Your task to perform on an android device: turn vacation reply on in the gmail app Image 0: 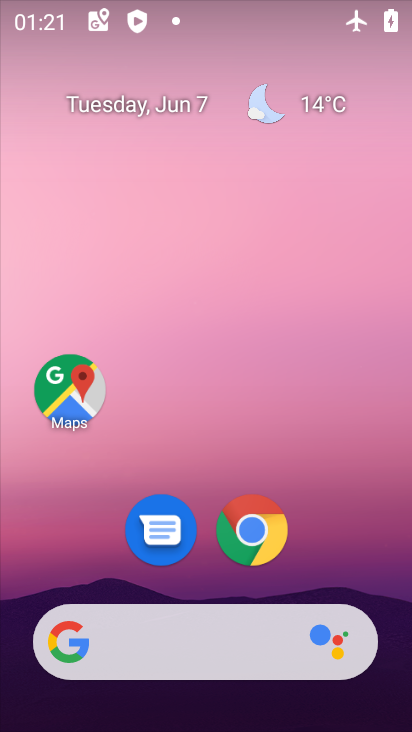
Step 0: drag from (293, 560) to (327, 187)
Your task to perform on an android device: turn vacation reply on in the gmail app Image 1: 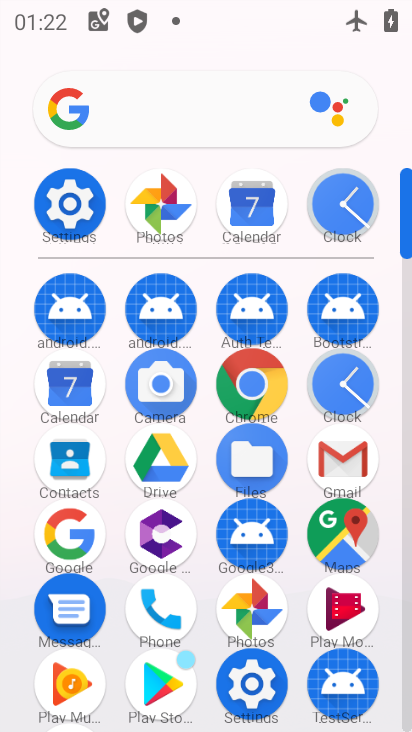
Step 1: click (348, 452)
Your task to perform on an android device: turn vacation reply on in the gmail app Image 2: 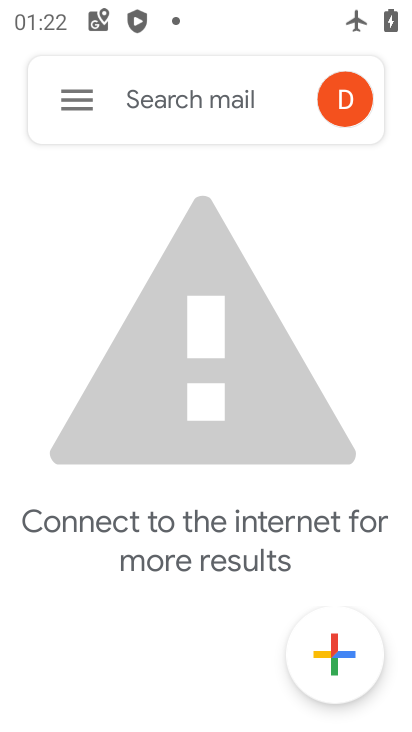
Step 2: click (79, 95)
Your task to perform on an android device: turn vacation reply on in the gmail app Image 3: 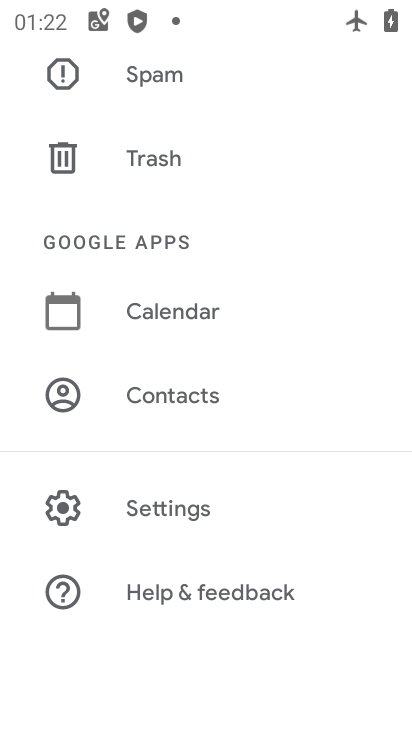
Step 3: click (151, 497)
Your task to perform on an android device: turn vacation reply on in the gmail app Image 4: 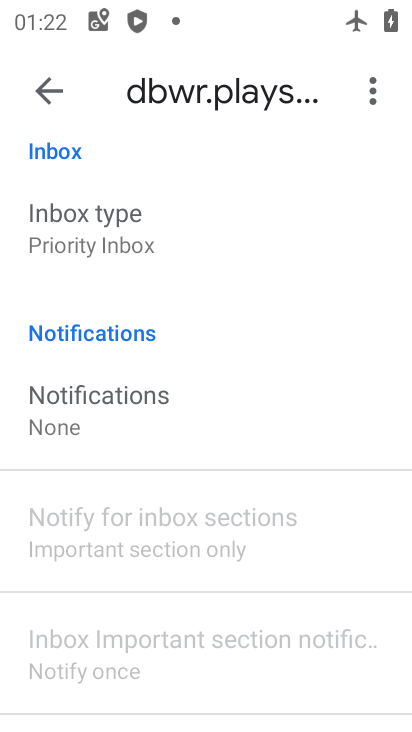
Step 4: drag from (260, 568) to (259, 197)
Your task to perform on an android device: turn vacation reply on in the gmail app Image 5: 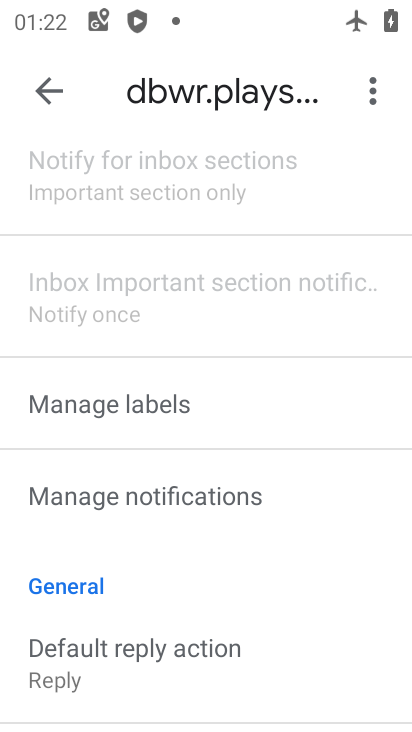
Step 5: drag from (185, 581) to (208, 265)
Your task to perform on an android device: turn vacation reply on in the gmail app Image 6: 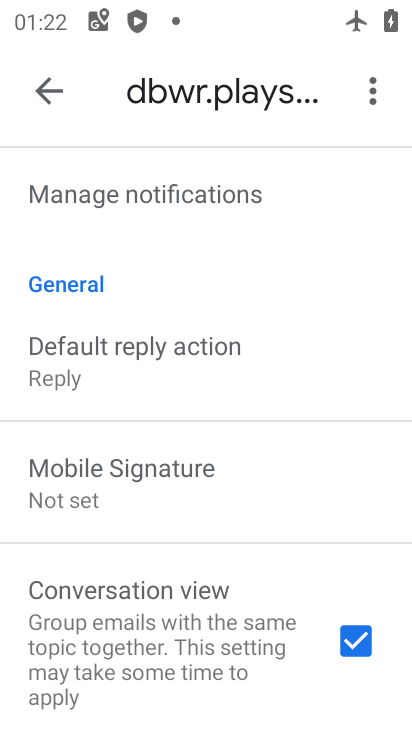
Step 6: drag from (185, 594) to (186, 304)
Your task to perform on an android device: turn vacation reply on in the gmail app Image 7: 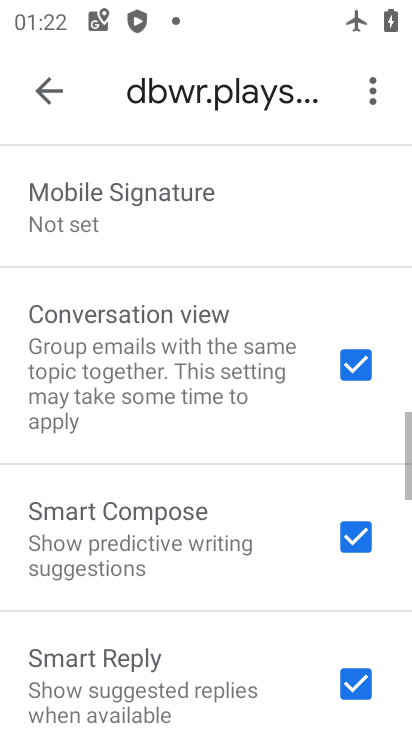
Step 7: drag from (175, 626) to (219, 193)
Your task to perform on an android device: turn vacation reply on in the gmail app Image 8: 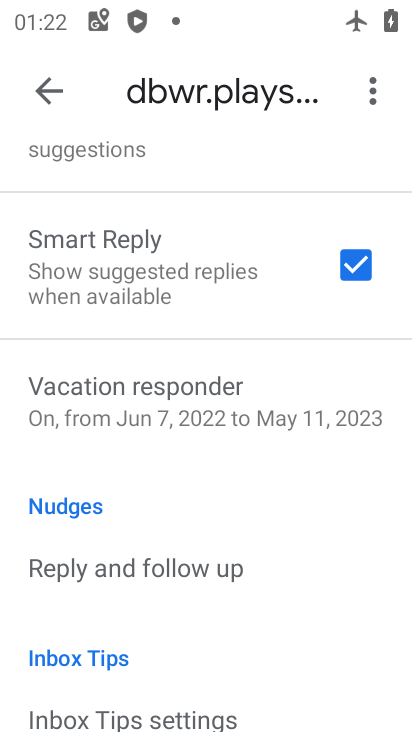
Step 8: click (168, 415)
Your task to perform on an android device: turn vacation reply on in the gmail app Image 9: 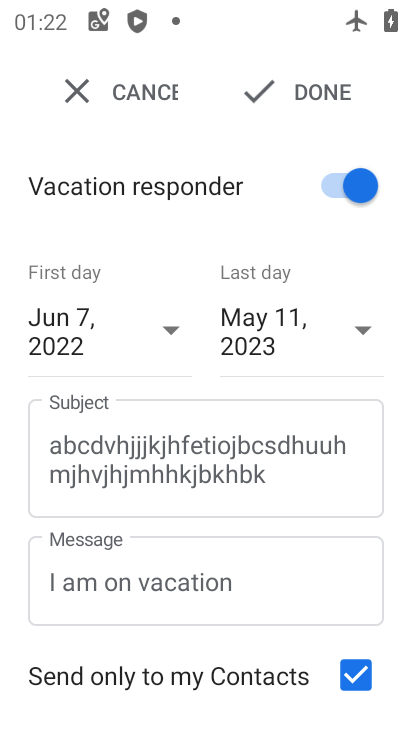
Step 9: task complete